Your task to perform on an android device: open app "Yahoo Mail" Image 0: 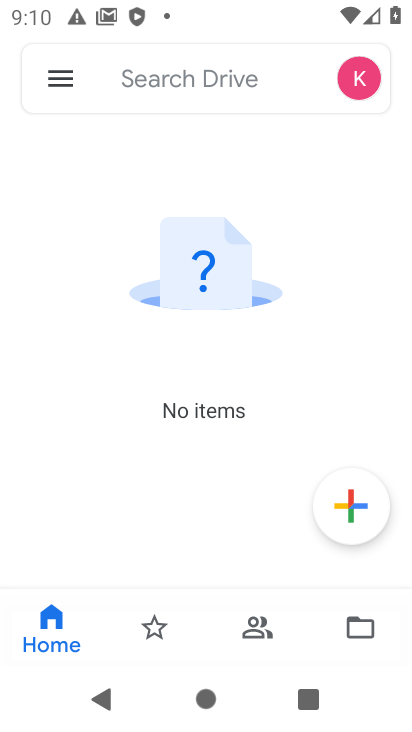
Step 0: press home button
Your task to perform on an android device: open app "Yahoo Mail" Image 1: 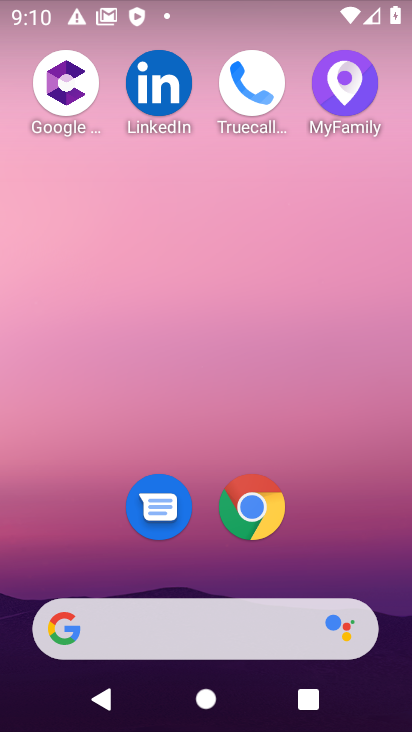
Step 1: drag from (269, 631) to (205, 35)
Your task to perform on an android device: open app "Yahoo Mail" Image 2: 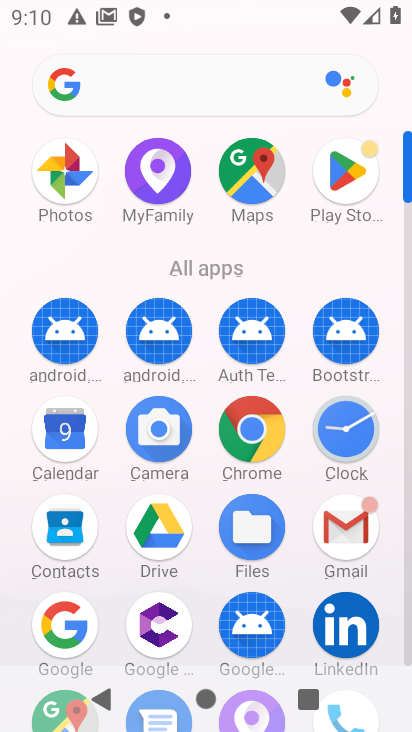
Step 2: click (355, 171)
Your task to perform on an android device: open app "Yahoo Mail" Image 3: 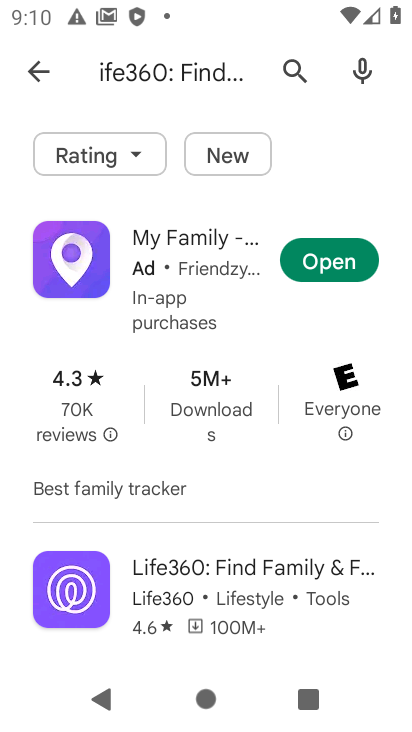
Step 3: click (41, 64)
Your task to perform on an android device: open app "Yahoo Mail" Image 4: 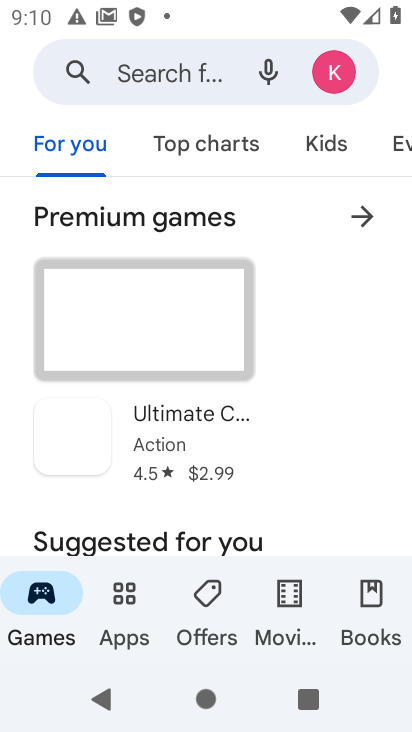
Step 4: click (152, 89)
Your task to perform on an android device: open app "Yahoo Mail" Image 5: 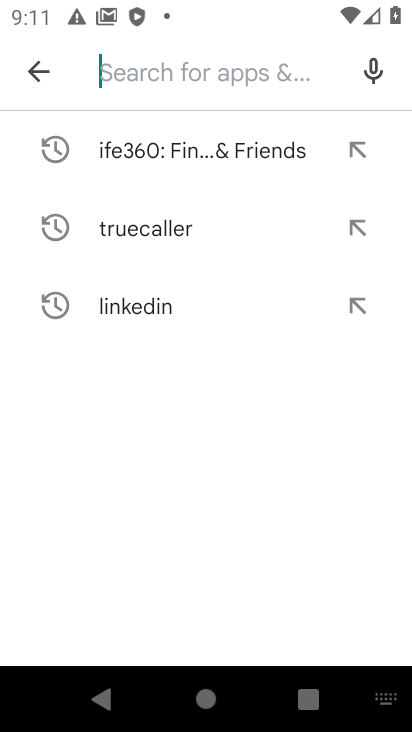
Step 5: type "Yahoo Mail"
Your task to perform on an android device: open app "Yahoo Mail" Image 6: 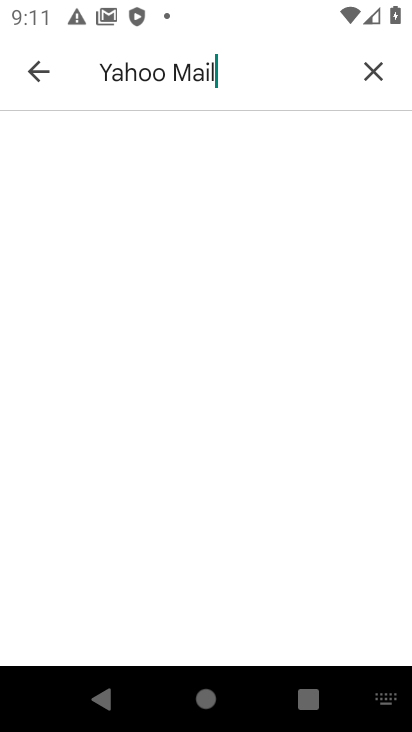
Step 6: press enter
Your task to perform on an android device: open app "Yahoo Mail" Image 7: 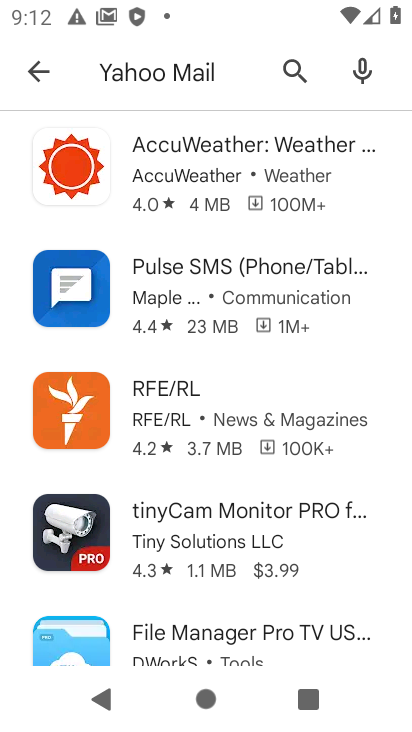
Step 7: task complete